Your task to perform on an android device: install app "File Manager" Image 0: 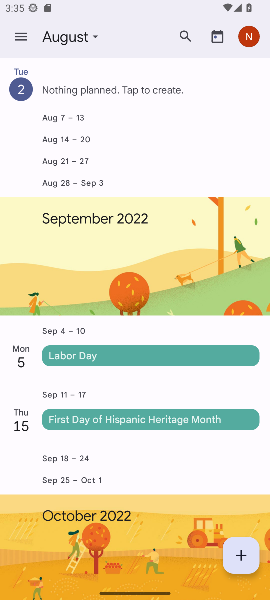
Step 0: press home button
Your task to perform on an android device: install app "File Manager" Image 1: 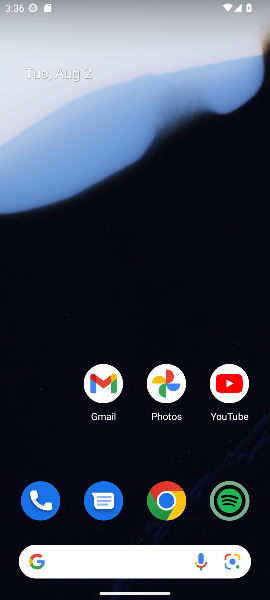
Step 1: drag from (141, 452) to (110, 169)
Your task to perform on an android device: install app "File Manager" Image 2: 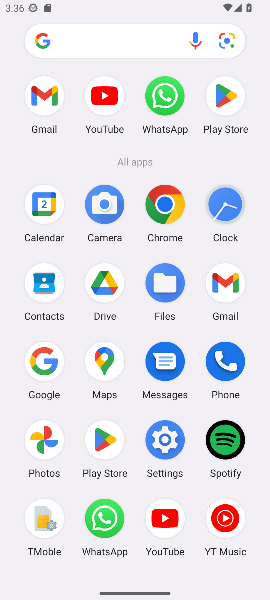
Step 2: click (101, 449)
Your task to perform on an android device: install app "File Manager" Image 3: 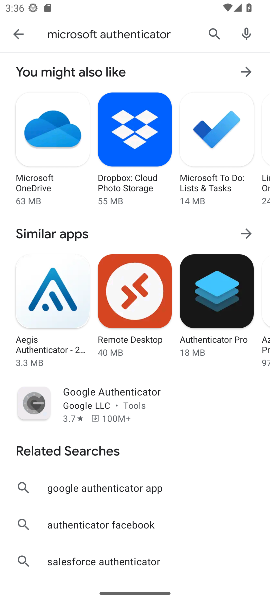
Step 3: click (214, 38)
Your task to perform on an android device: install app "File Manager" Image 4: 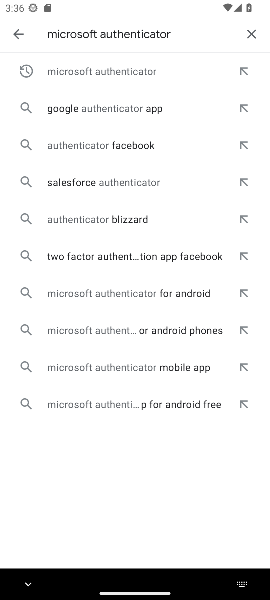
Step 4: click (254, 30)
Your task to perform on an android device: install app "File Manager" Image 5: 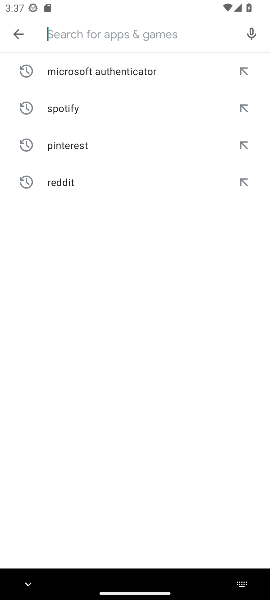
Step 5: type "file manager"
Your task to perform on an android device: install app "File Manager" Image 6: 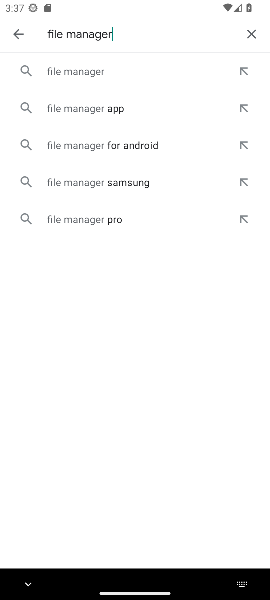
Step 6: click (132, 72)
Your task to perform on an android device: install app "File Manager" Image 7: 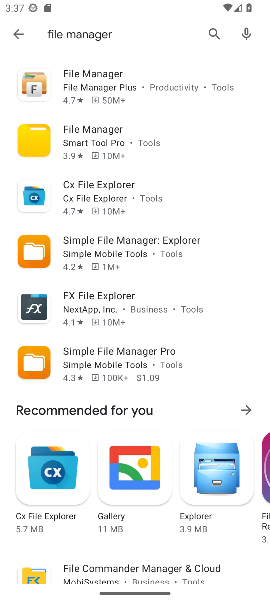
Step 7: click (178, 143)
Your task to perform on an android device: install app "File Manager" Image 8: 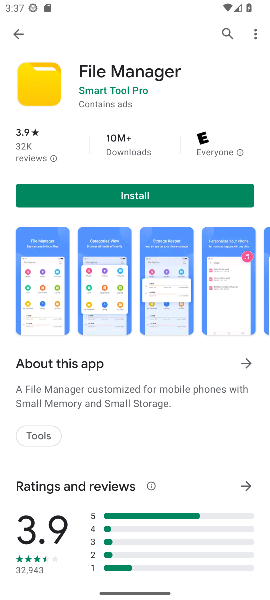
Step 8: click (198, 193)
Your task to perform on an android device: install app "File Manager" Image 9: 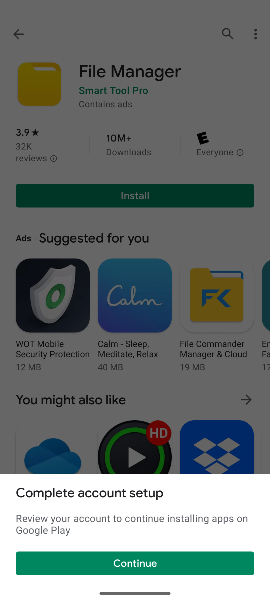
Step 9: click (189, 570)
Your task to perform on an android device: install app "File Manager" Image 10: 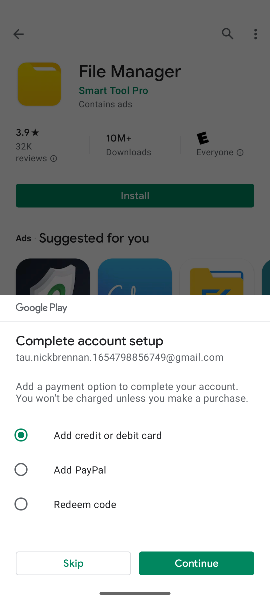
Step 10: click (66, 563)
Your task to perform on an android device: install app "File Manager" Image 11: 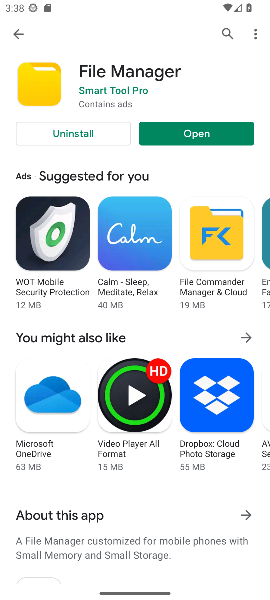
Step 11: task complete